Your task to perform on an android device: create a new album in the google photos Image 0: 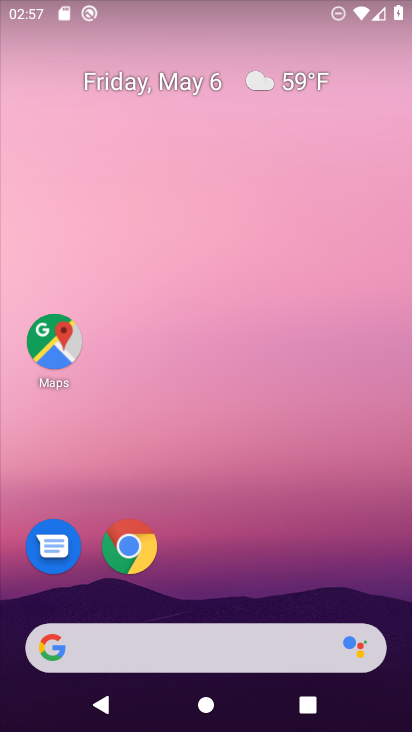
Step 0: drag from (277, 597) to (304, 146)
Your task to perform on an android device: create a new album in the google photos Image 1: 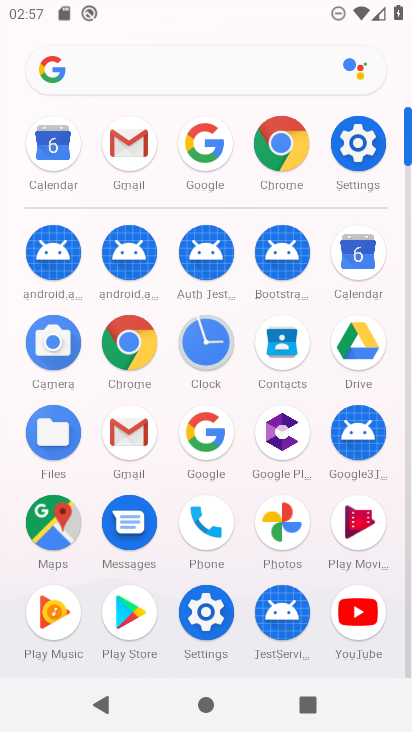
Step 1: click (280, 516)
Your task to perform on an android device: create a new album in the google photos Image 2: 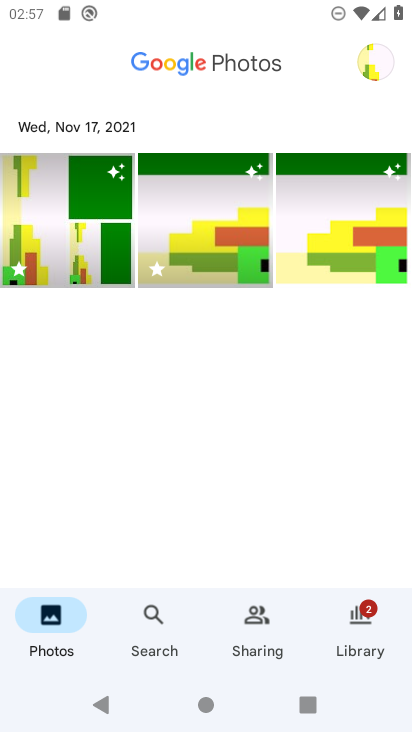
Step 2: click (355, 631)
Your task to perform on an android device: create a new album in the google photos Image 3: 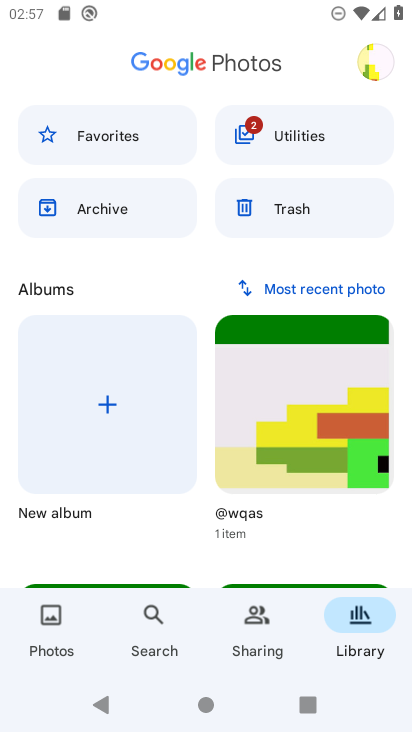
Step 3: click (122, 409)
Your task to perform on an android device: create a new album in the google photos Image 4: 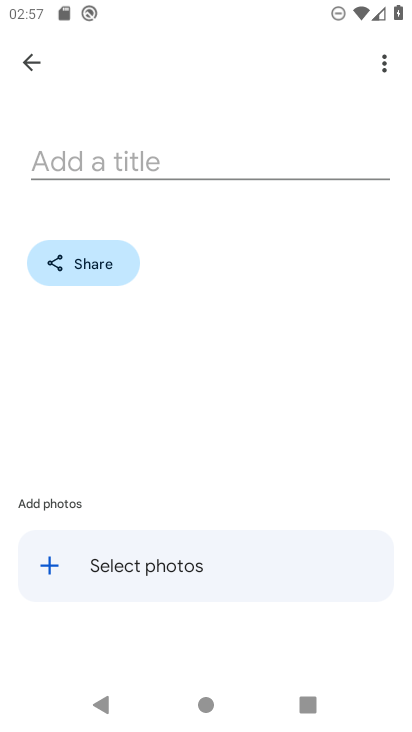
Step 4: click (151, 156)
Your task to perform on an android device: create a new album in the google photos Image 5: 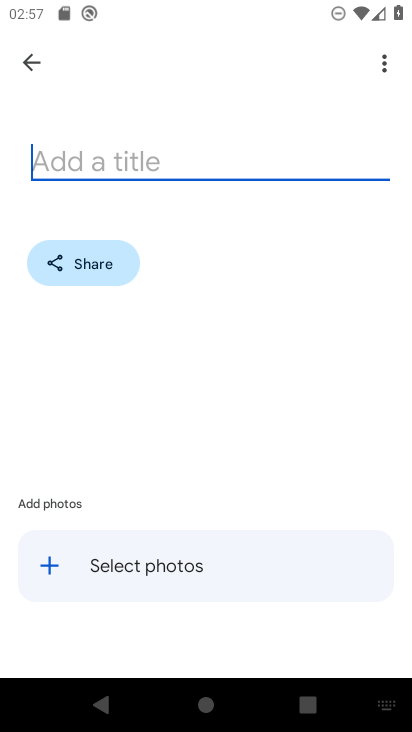
Step 5: type "hsdgcydgs"
Your task to perform on an android device: create a new album in the google photos Image 6: 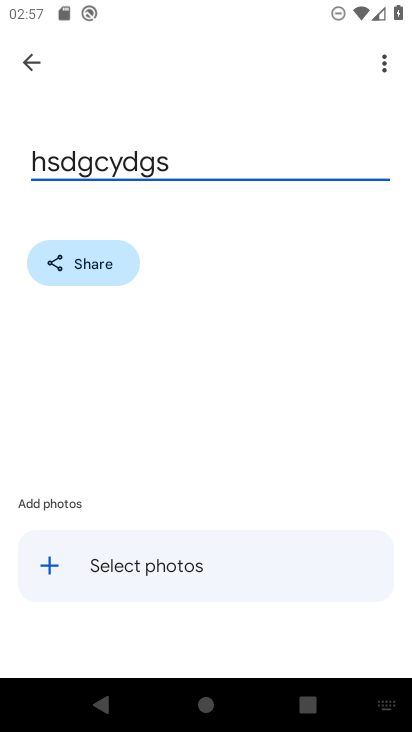
Step 6: click (47, 568)
Your task to perform on an android device: create a new album in the google photos Image 7: 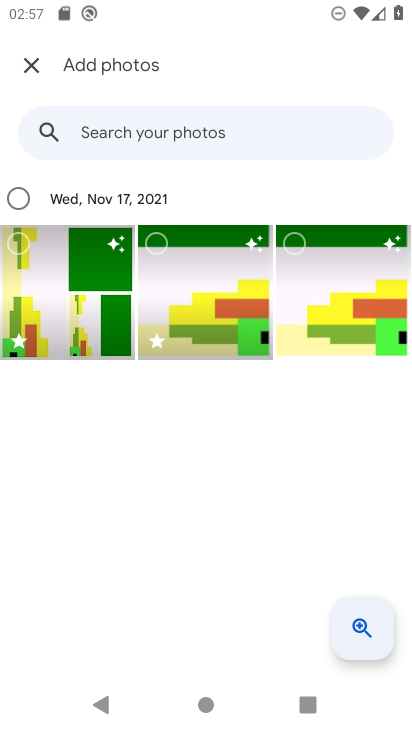
Step 7: click (157, 246)
Your task to perform on an android device: create a new album in the google photos Image 8: 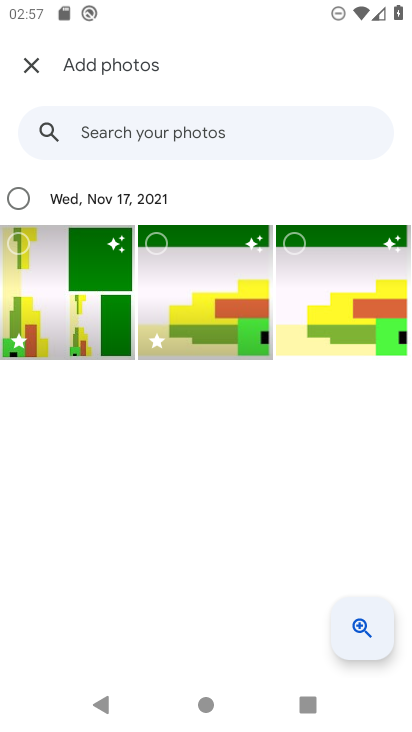
Step 8: click (283, 246)
Your task to perform on an android device: create a new album in the google photos Image 9: 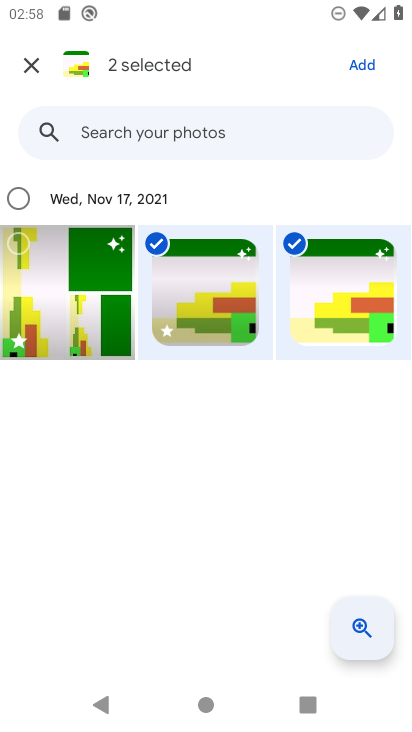
Step 9: click (357, 64)
Your task to perform on an android device: create a new album in the google photos Image 10: 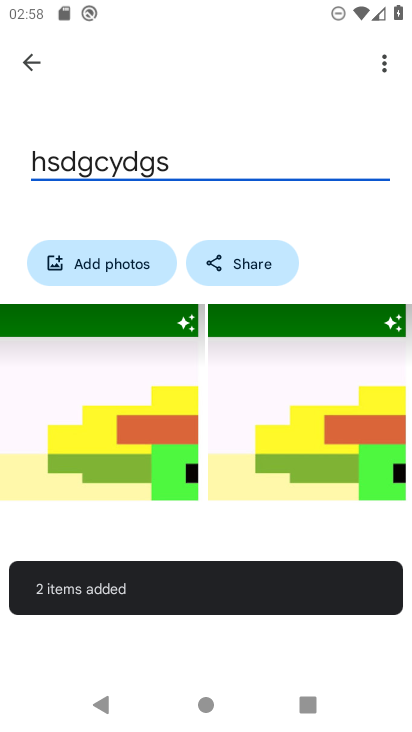
Step 10: task complete